Your task to perform on an android device: See recent photos Image 0: 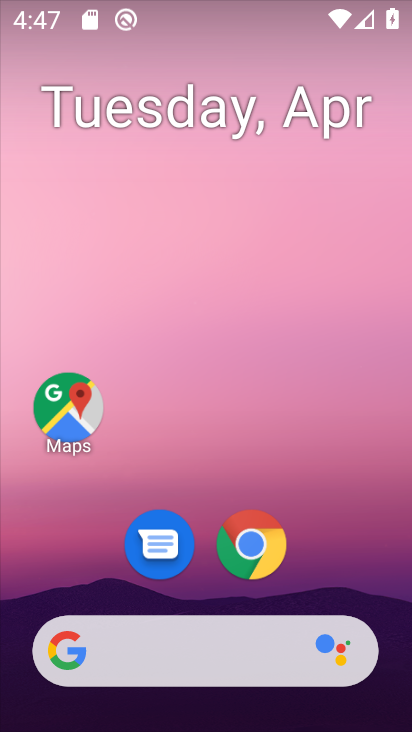
Step 0: drag from (241, 618) to (246, 262)
Your task to perform on an android device: See recent photos Image 1: 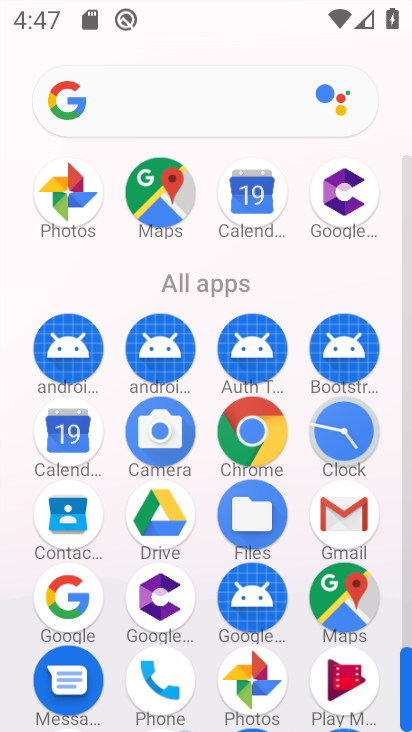
Step 1: click (67, 200)
Your task to perform on an android device: See recent photos Image 2: 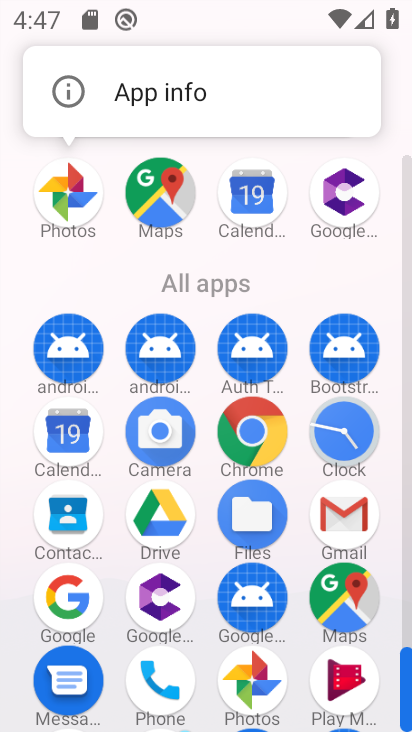
Step 2: click (65, 219)
Your task to perform on an android device: See recent photos Image 3: 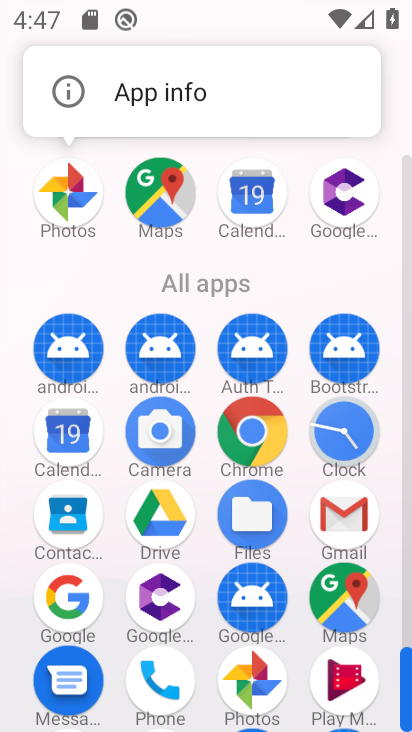
Step 3: click (65, 219)
Your task to perform on an android device: See recent photos Image 4: 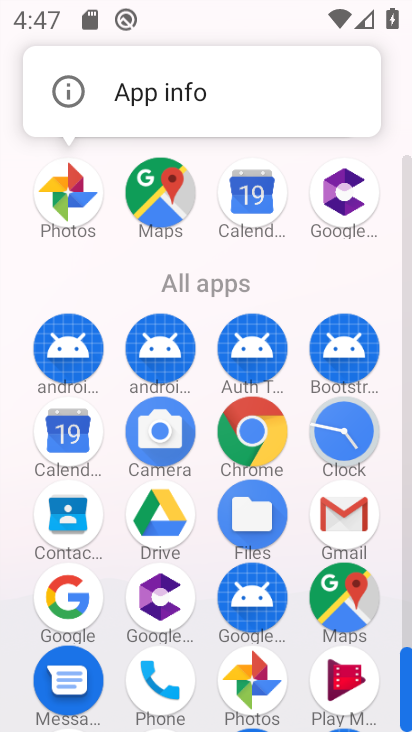
Step 4: click (72, 281)
Your task to perform on an android device: See recent photos Image 5: 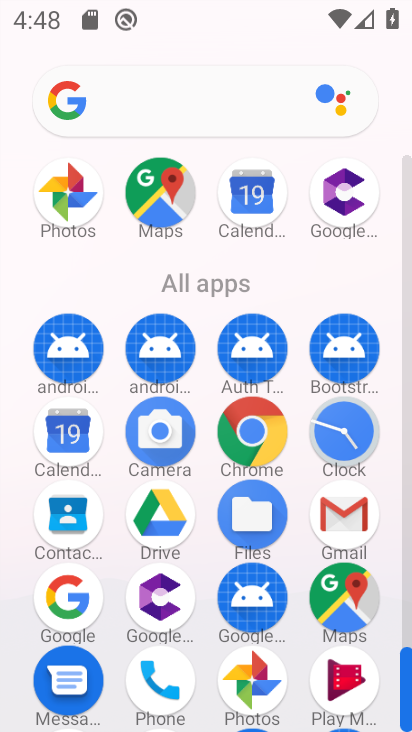
Step 5: click (70, 214)
Your task to perform on an android device: See recent photos Image 6: 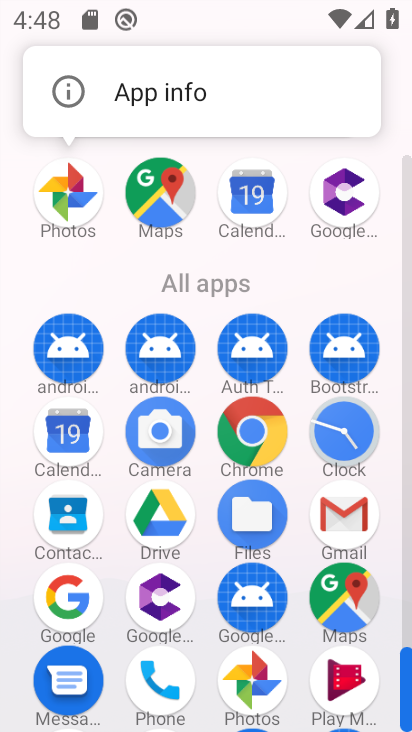
Step 6: click (77, 203)
Your task to perform on an android device: See recent photos Image 7: 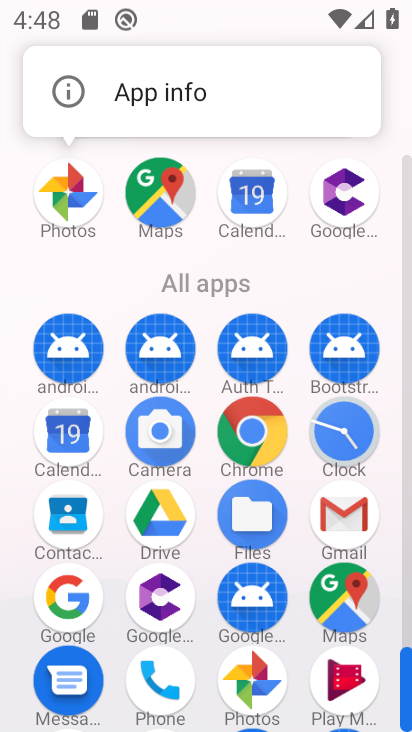
Step 7: click (247, 682)
Your task to perform on an android device: See recent photos Image 8: 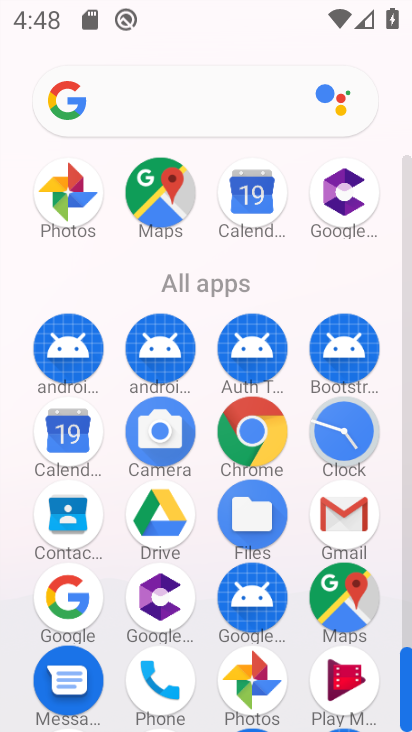
Step 8: click (270, 673)
Your task to perform on an android device: See recent photos Image 9: 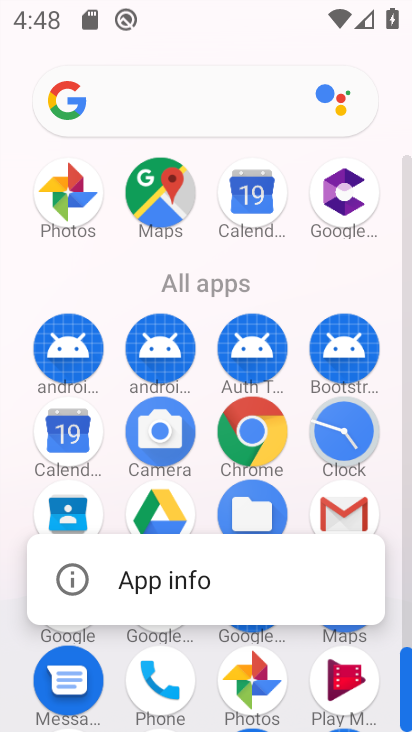
Step 9: click (270, 673)
Your task to perform on an android device: See recent photos Image 10: 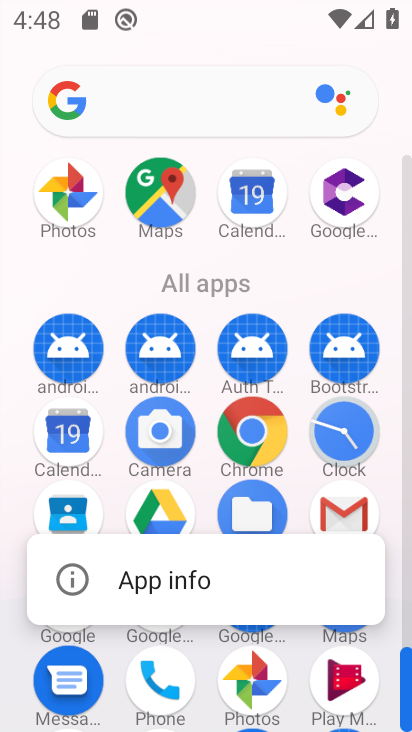
Step 10: click (270, 673)
Your task to perform on an android device: See recent photos Image 11: 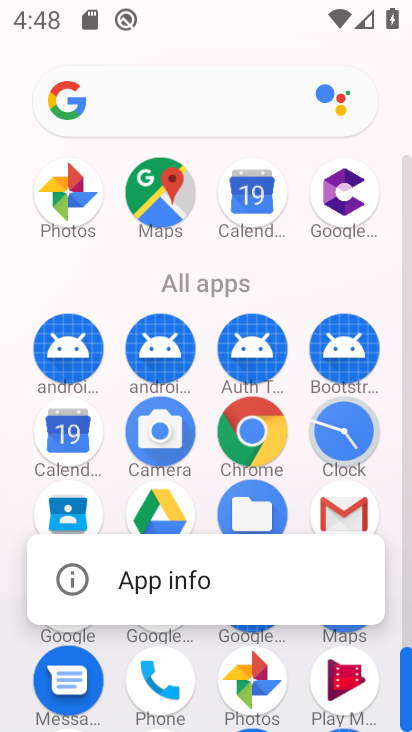
Step 11: click (270, 673)
Your task to perform on an android device: See recent photos Image 12: 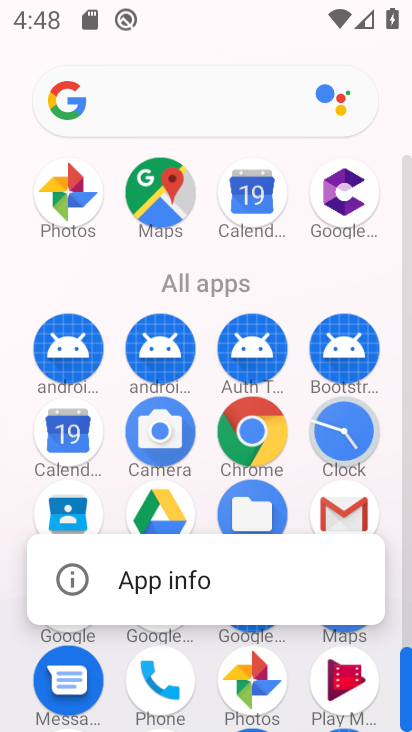
Step 12: click (261, 683)
Your task to perform on an android device: See recent photos Image 13: 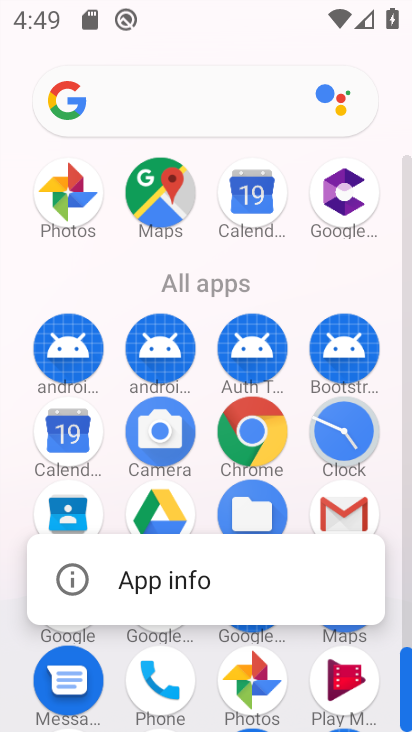
Step 13: click (255, 688)
Your task to perform on an android device: See recent photos Image 14: 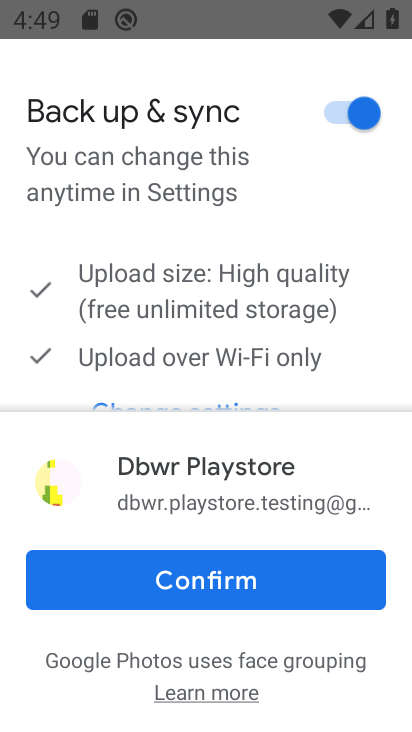
Step 14: click (212, 602)
Your task to perform on an android device: See recent photos Image 15: 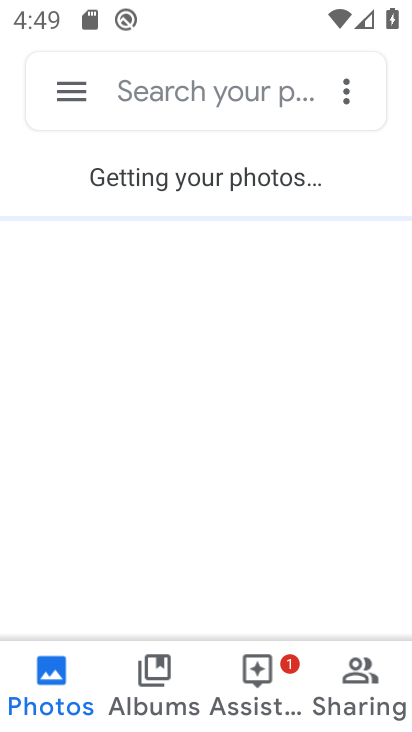
Step 15: click (146, 663)
Your task to perform on an android device: See recent photos Image 16: 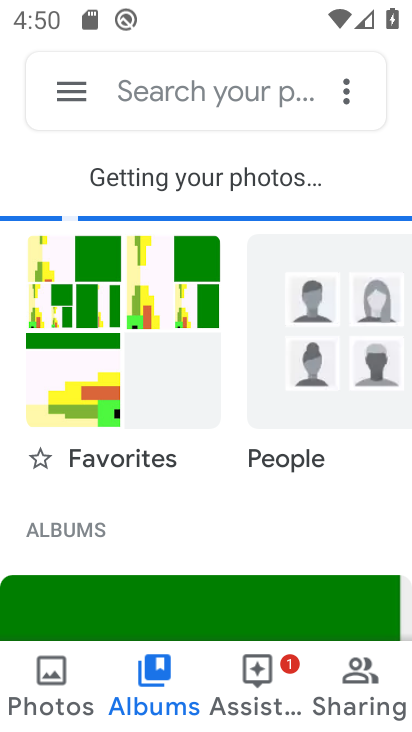
Step 16: click (46, 676)
Your task to perform on an android device: See recent photos Image 17: 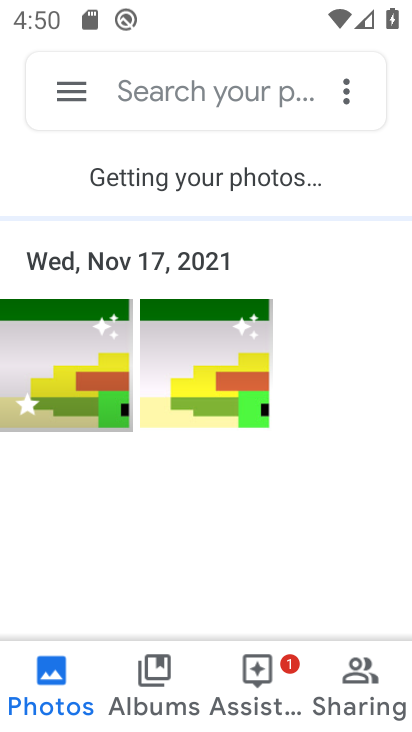
Step 17: task complete